Your task to perform on an android device: Go to accessibility settings Image 0: 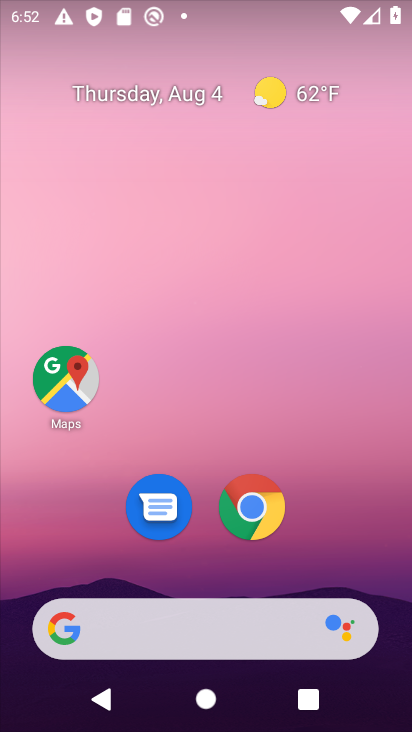
Step 0: drag from (375, 489) to (257, 88)
Your task to perform on an android device: Go to accessibility settings Image 1: 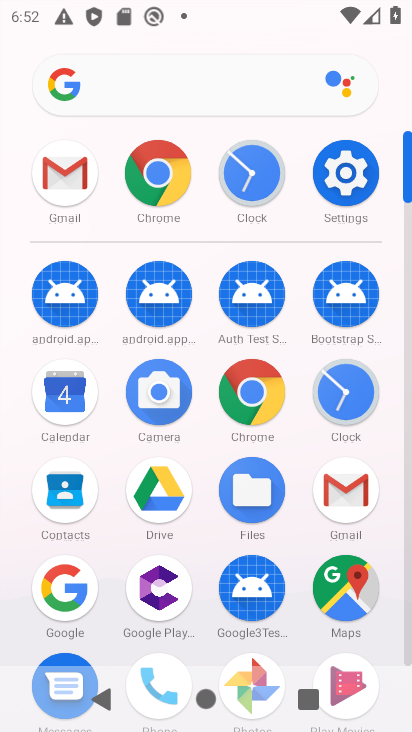
Step 1: click (340, 195)
Your task to perform on an android device: Go to accessibility settings Image 2: 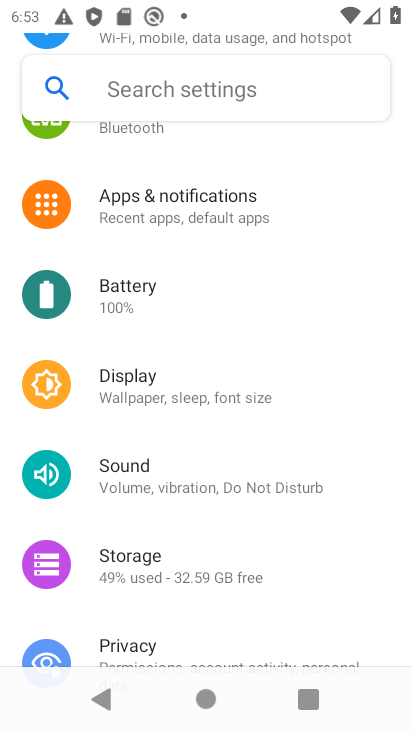
Step 2: drag from (244, 587) to (239, 89)
Your task to perform on an android device: Go to accessibility settings Image 3: 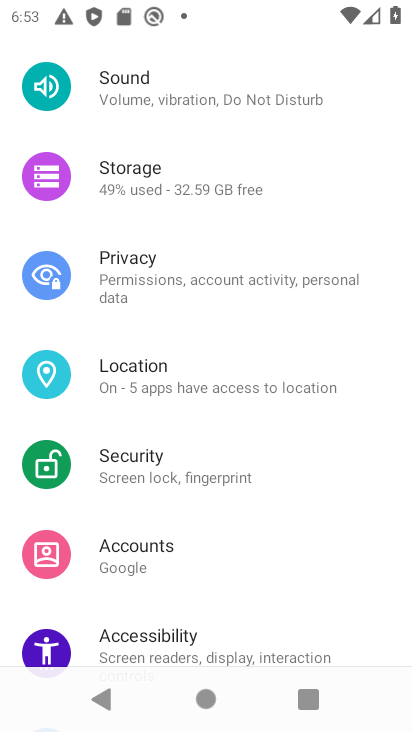
Step 3: click (182, 637)
Your task to perform on an android device: Go to accessibility settings Image 4: 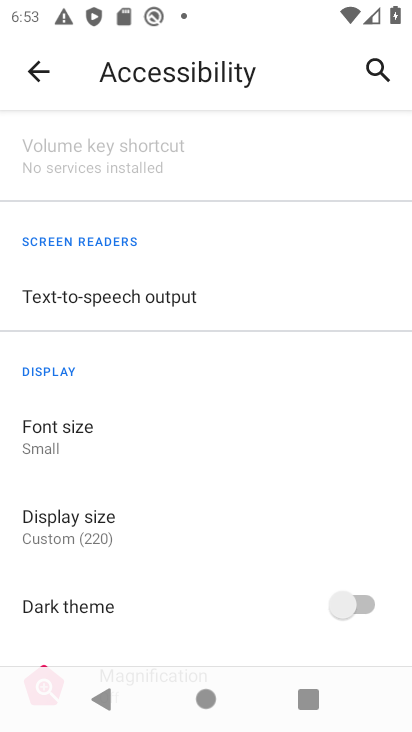
Step 4: task complete